Your task to perform on an android device: Open sound settings Image 0: 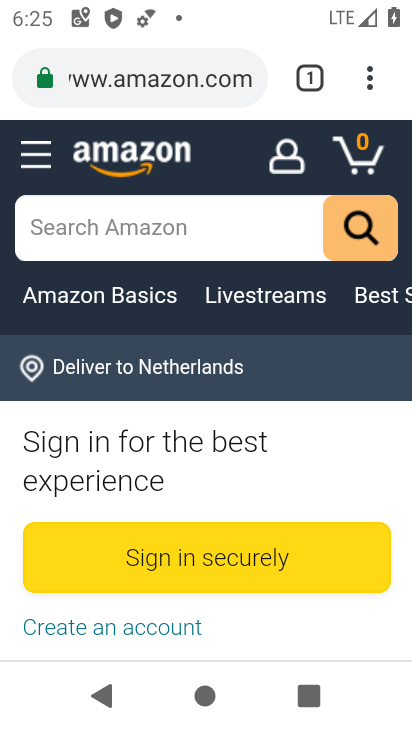
Step 0: press home button
Your task to perform on an android device: Open sound settings Image 1: 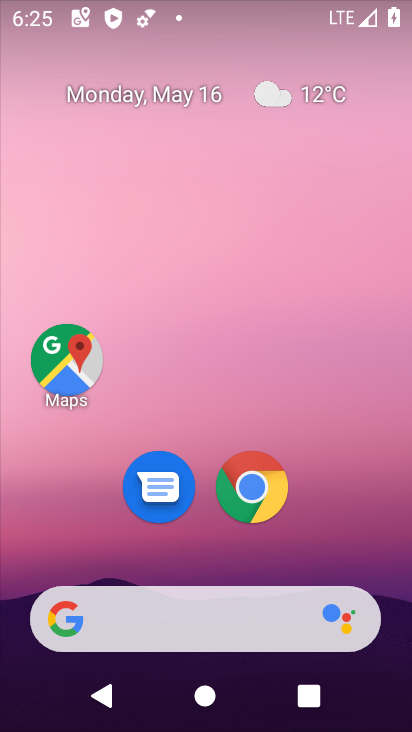
Step 1: drag from (373, 520) to (275, 65)
Your task to perform on an android device: Open sound settings Image 2: 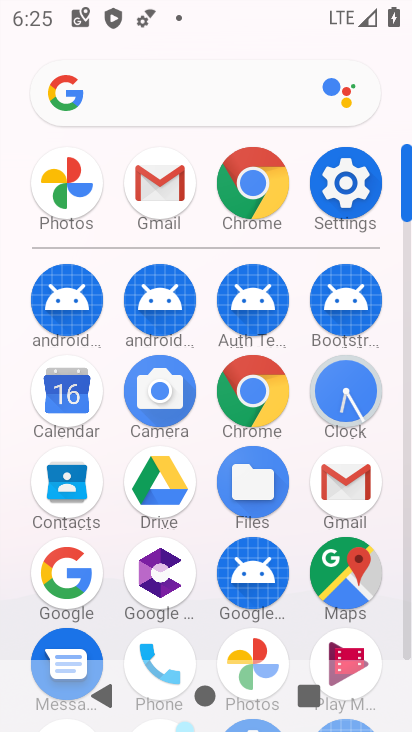
Step 2: click (340, 173)
Your task to perform on an android device: Open sound settings Image 3: 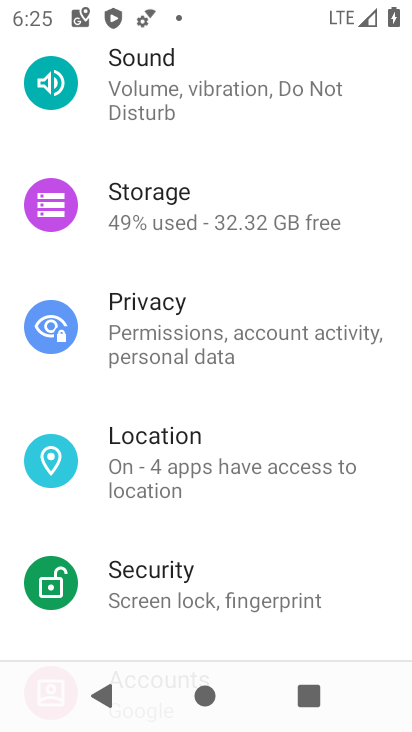
Step 3: click (164, 92)
Your task to perform on an android device: Open sound settings Image 4: 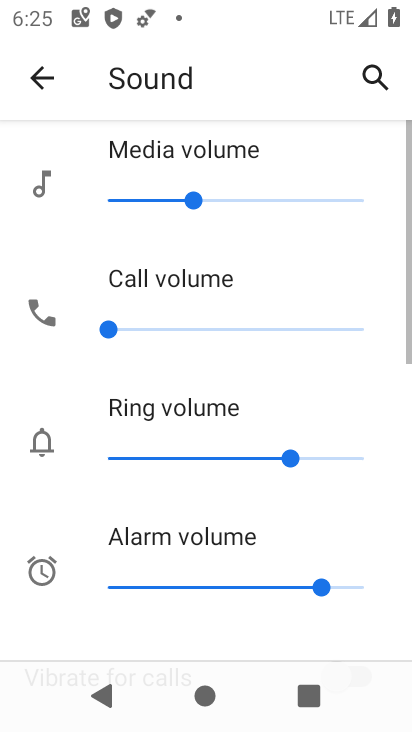
Step 4: task complete